Your task to perform on an android device: turn off sleep mode Image 0: 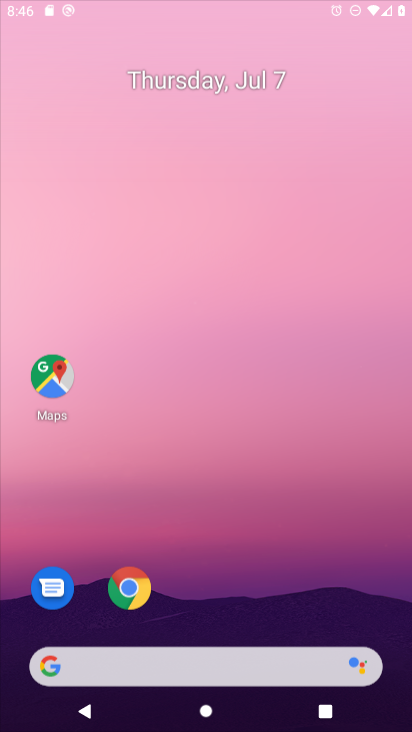
Step 0: drag from (217, 645) to (228, 226)
Your task to perform on an android device: turn off sleep mode Image 1: 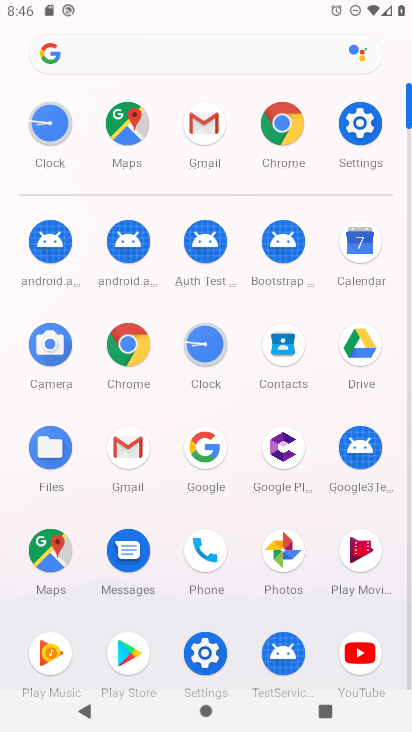
Step 1: click (374, 129)
Your task to perform on an android device: turn off sleep mode Image 2: 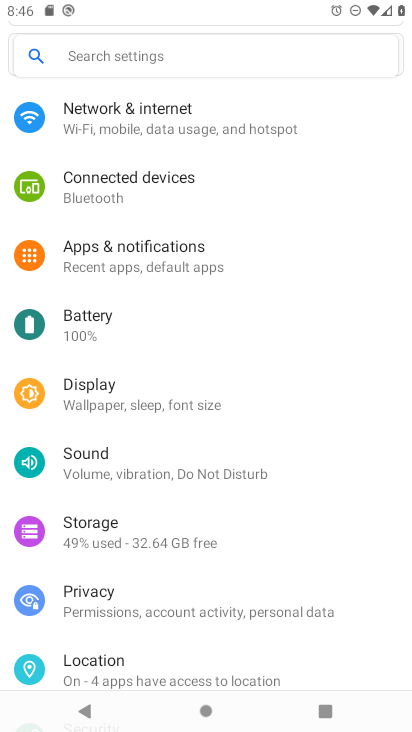
Step 2: task complete